Your task to perform on an android device: Open the calendar and show me this week's events Image 0: 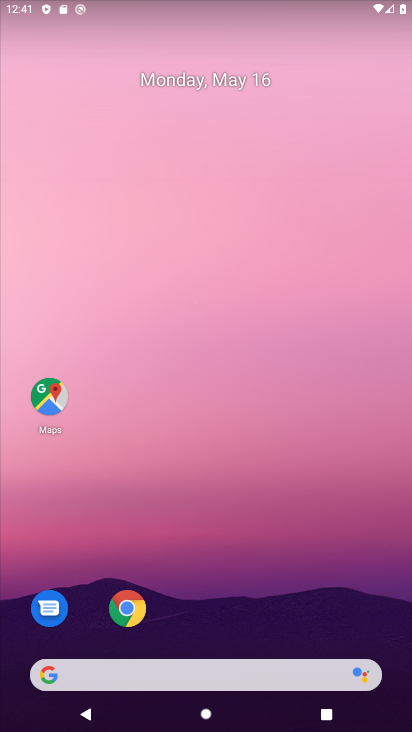
Step 0: drag from (176, 461) to (308, 22)
Your task to perform on an android device: Open the calendar and show me this week's events Image 1: 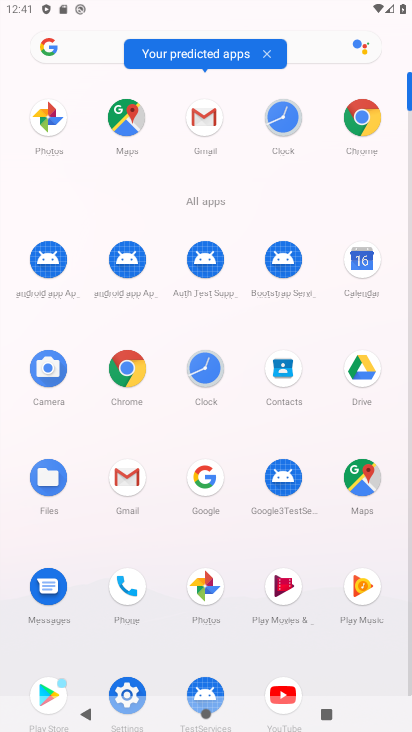
Step 1: click (351, 260)
Your task to perform on an android device: Open the calendar and show me this week's events Image 2: 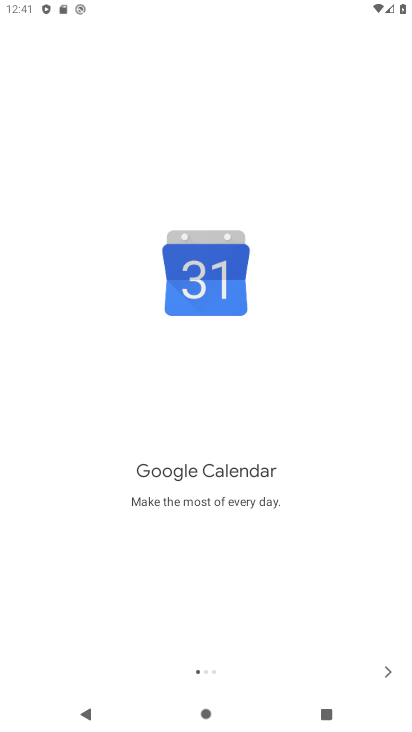
Step 2: click (390, 673)
Your task to perform on an android device: Open the calendar and show me this week's events Image 3: 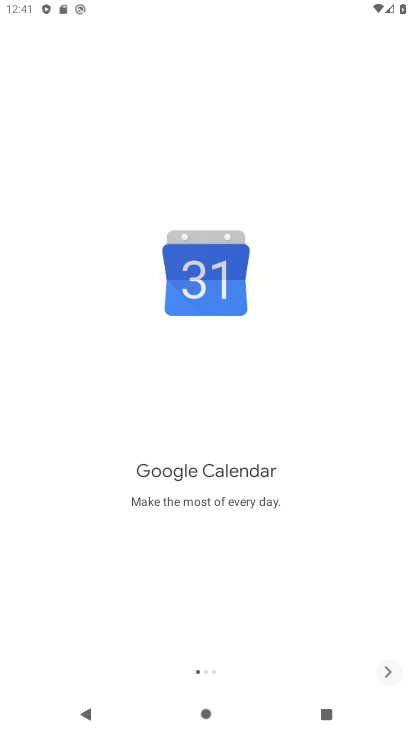
Step 3: click (390, 673)
Your task to perform on an android device: Open the calendar and show me this week's events Image 4: 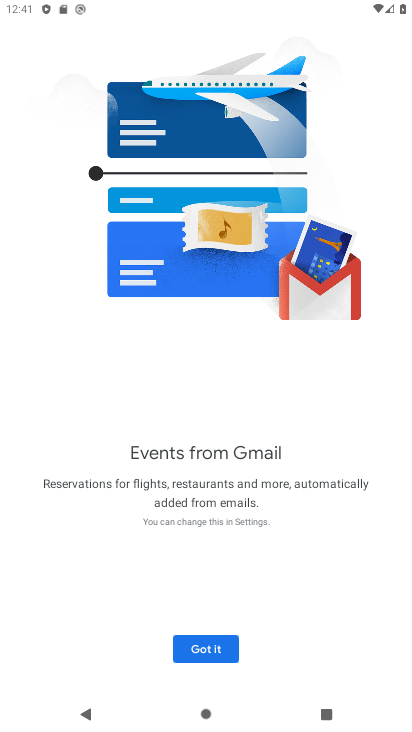
Step 4: click (390, 673)
Your task to perform on an android device: Open the calendar and show me this week's events Image 5: 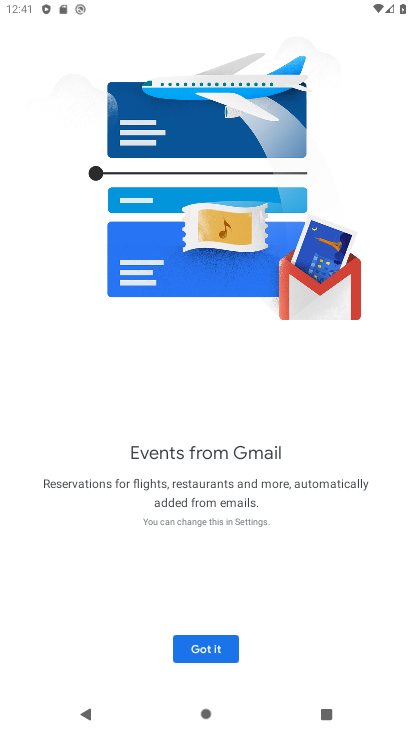
Step 5: click (196, 648)
Your task to perform on an android device: Open the calendar and show me this week's events Image 6: 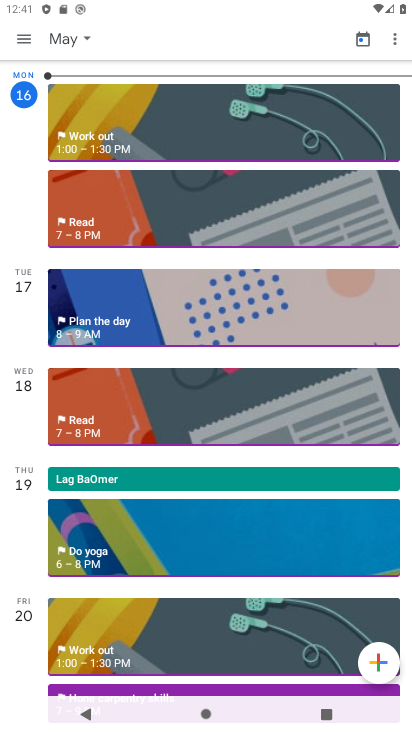
Step 6: click (25, 31)
Your task to perform on an android device: Open the calendar and show me this week's events Image 7: 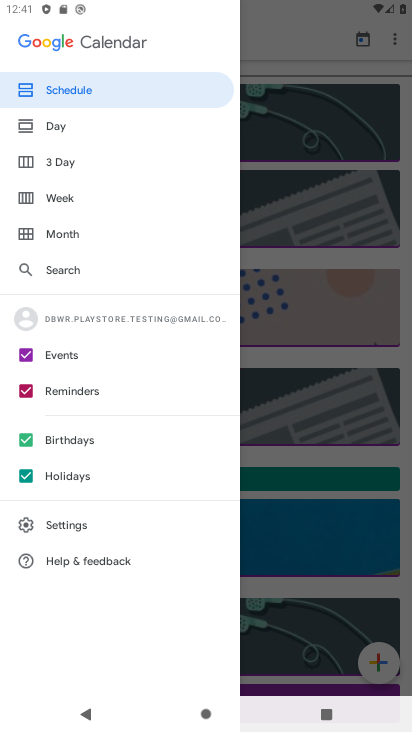
Step 7: click (27, 384)
Your task to perform on an android device: Open the calendar and show me this week's events Image 8: 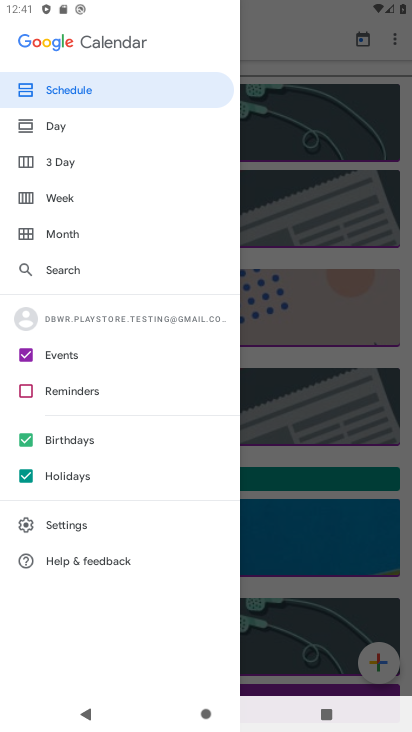
Step 8: click (27, 437)
Your task to perform on an android device: Open the calendar and show me this week's events Image 9: 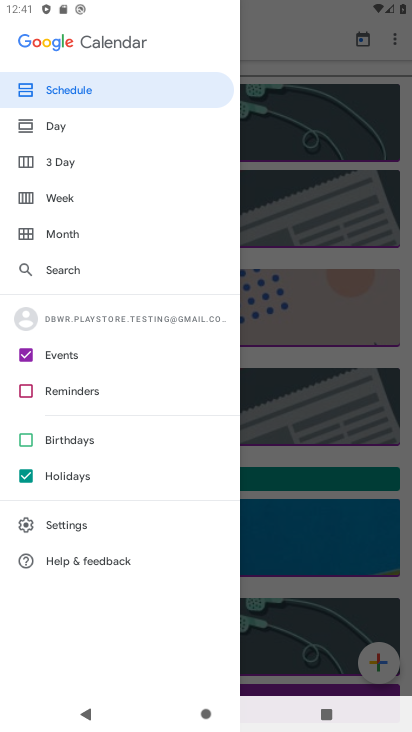
Step 9: click (21, 479)
Your task to perform on an android device: Open the calendar and show me this week's events Image 10: 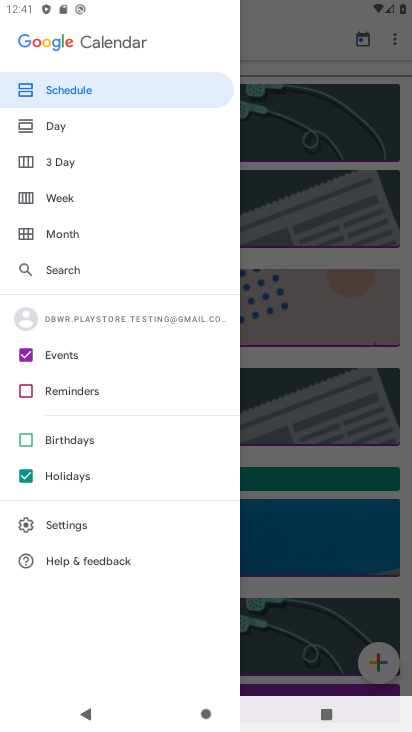
Step 10: click (26, 475)
Your task to perform on an android device: Open the calendar and show me this week's events Image 11: 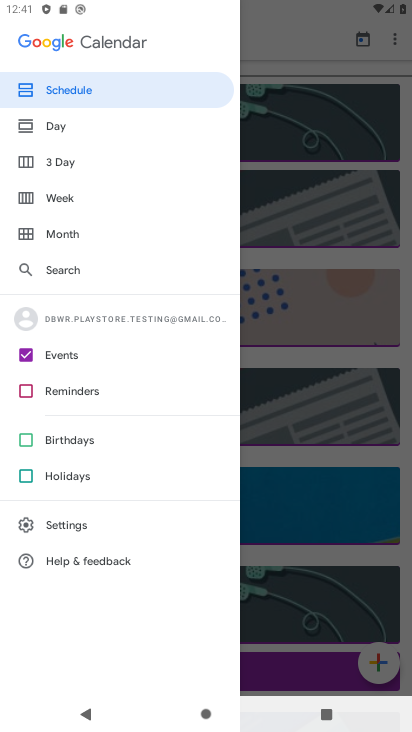
Step 11: click (70, 192)
Your task to perform on an android device: Open the calendar and show me this week's events Image 12: 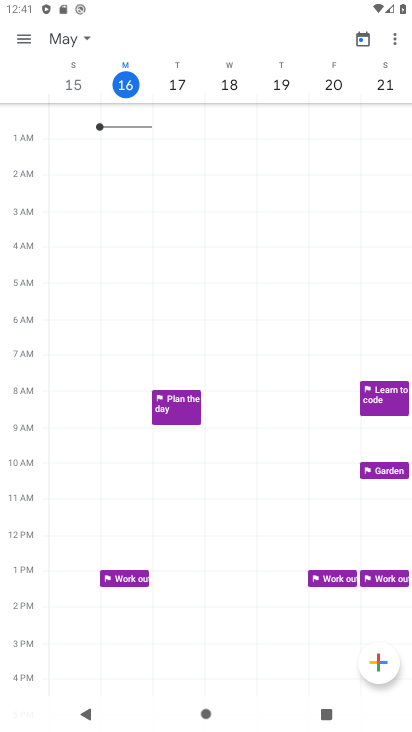
Step 12: task complete